Your task to perform on an android device: all mails in gmail Image 0: 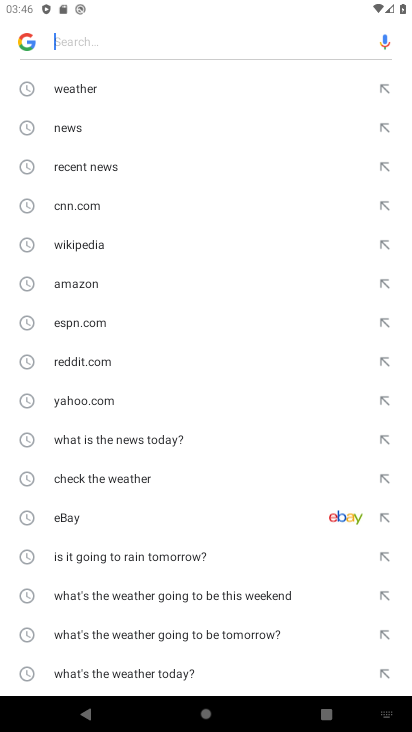
Step 0: press home button
Your task to perform on an android device: all mails in gmail Image 1: 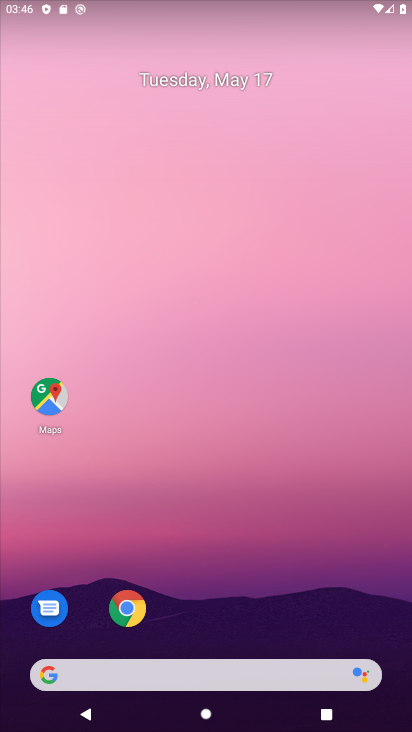
Step 1: drag from (209, 572) to (196, 240)
Your task to perform on an android device: all mails in gmail Image 2: 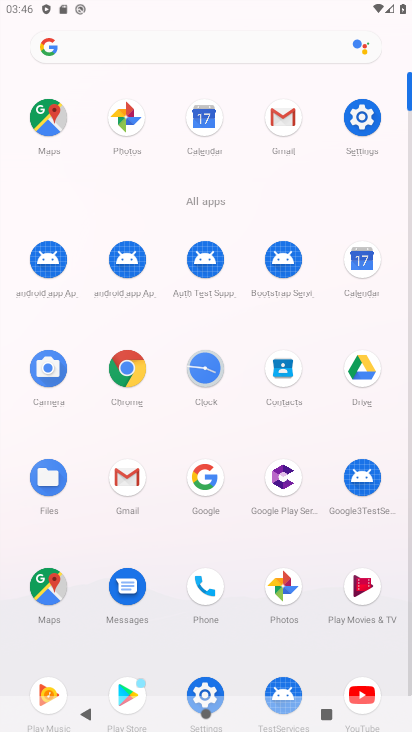
Step 2: click (289, 122)
Your task to perform on an android device: all mails in gmail Image 3: 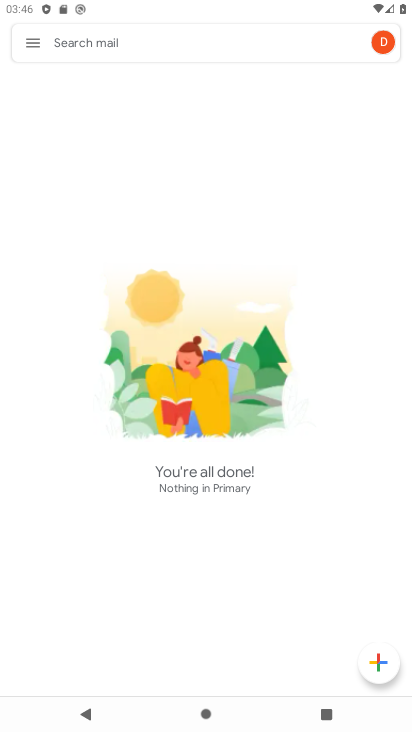
Step 3: click (31, 46)
Your task to perform on an android device: all mails in gmail Image 4: 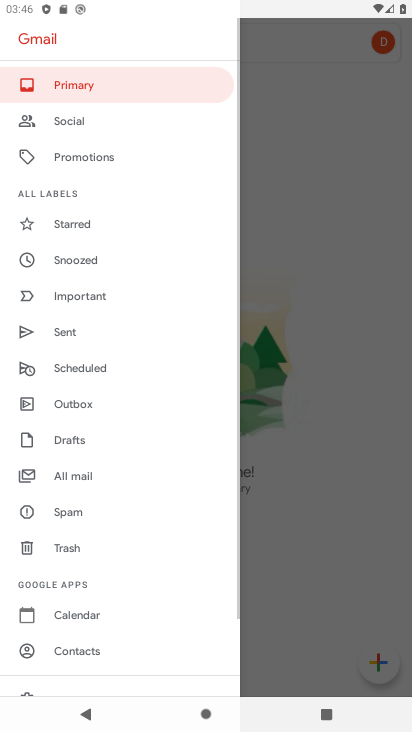
Step 4: click (78, 481)
Your task to perform on an android device: all mails in gmail Image 5: 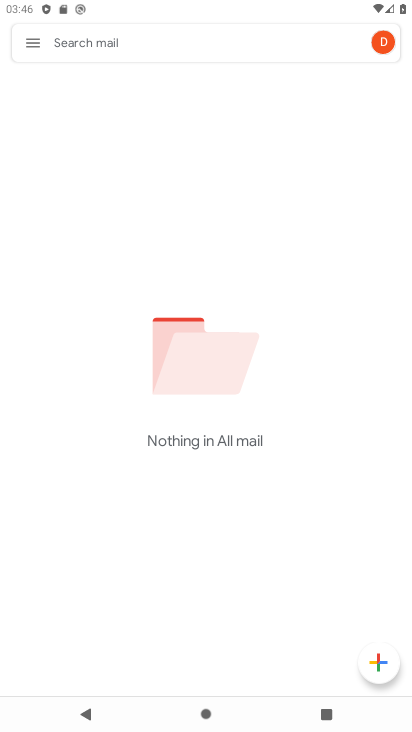
Step 5: task complete